Your task to perform on an android device: Go to network settings Image 0: 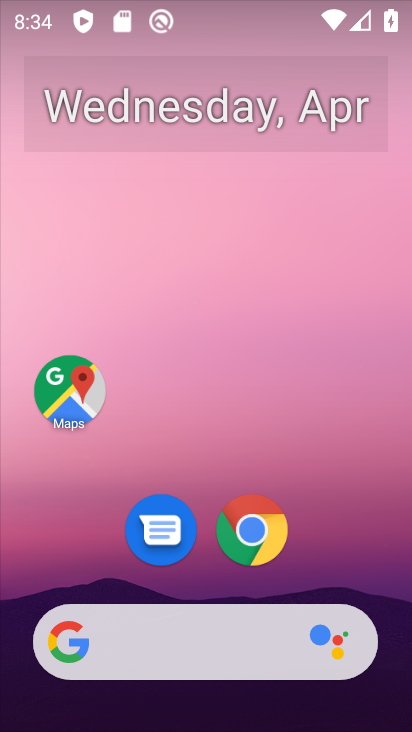
Step 0: drag from (390, 555) to (356, 108)
Your task to perform on an android device: Go to network settings Image 1: 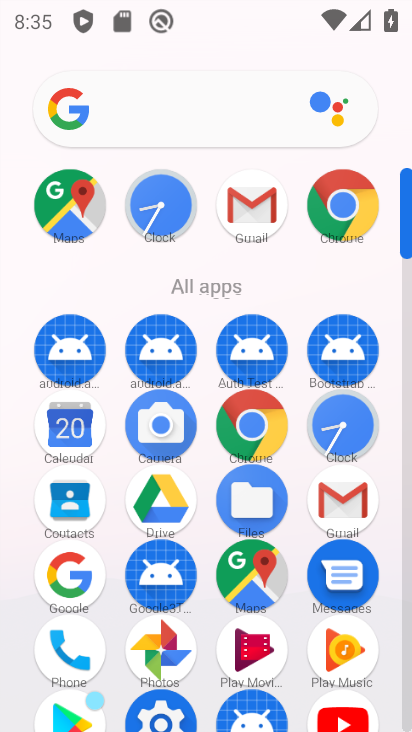
Step 1: click (179, 713)
Your task to perform on an android device: Go to network settings Image 2: 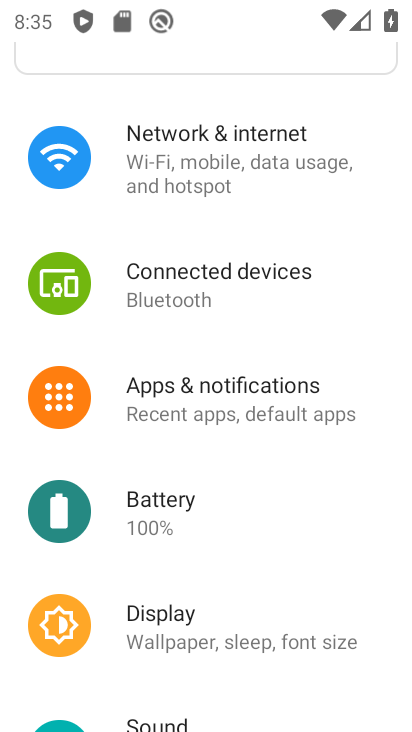
Step 2: click (231, 182)
Your task to perform on an android device: Go to network settings Image 3: 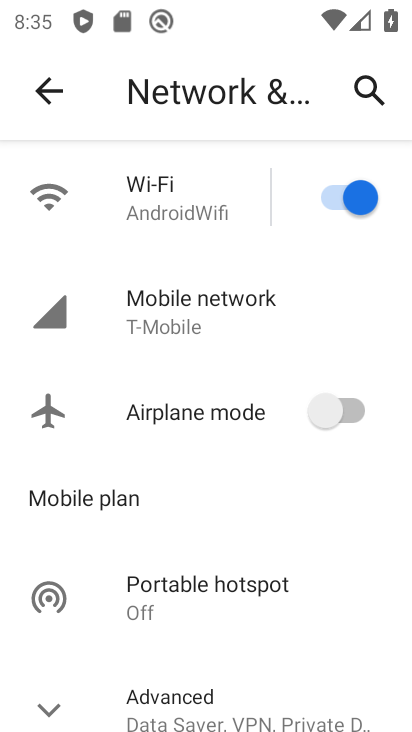
Step 3: task complete